Your task to perform on an android device: change timer sound Image 0: 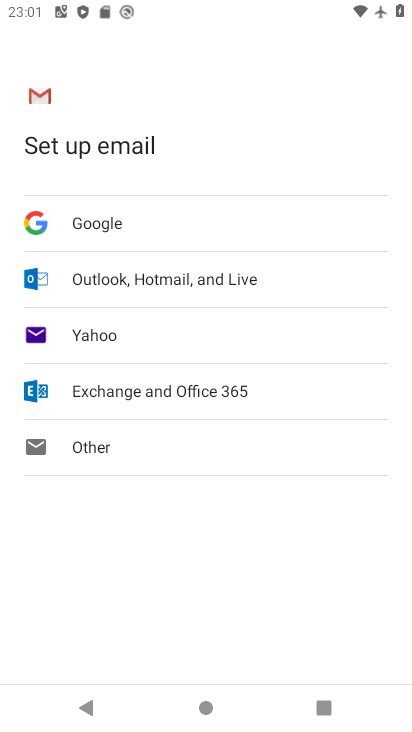
Step 0: press home button
Your task to perform on an android device: change timer sound Image 1: 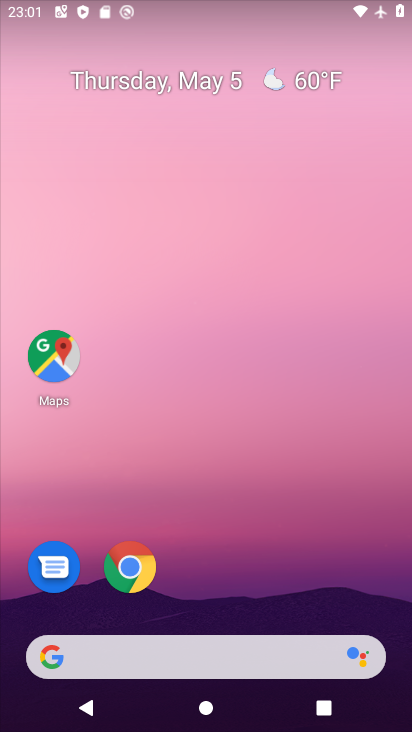
Step 1: drag from (193, 580) to (188, 242)
Your task to perform on an android device: change timer sound Image 2: 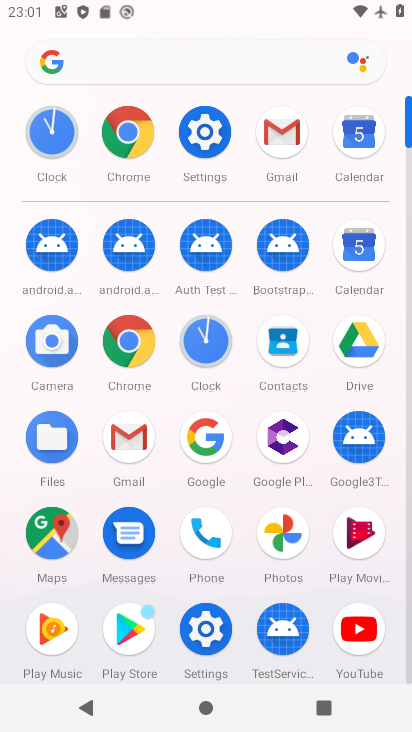
Step 2: click (214, 342)
Your task to perform on an android device: change timer sound Image 3: 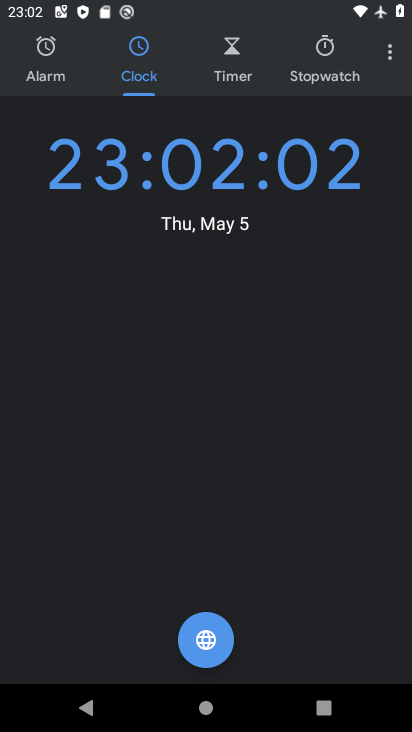
Step 3: click (388, 62)
Your task to perform on an android device: change timer sound Image 4: 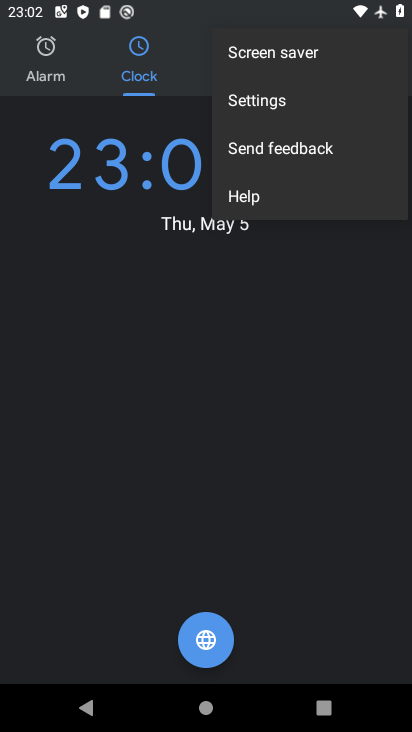
Step 4: click (289, 112)
Your task to perform on an android device: change timer sound Image 5: 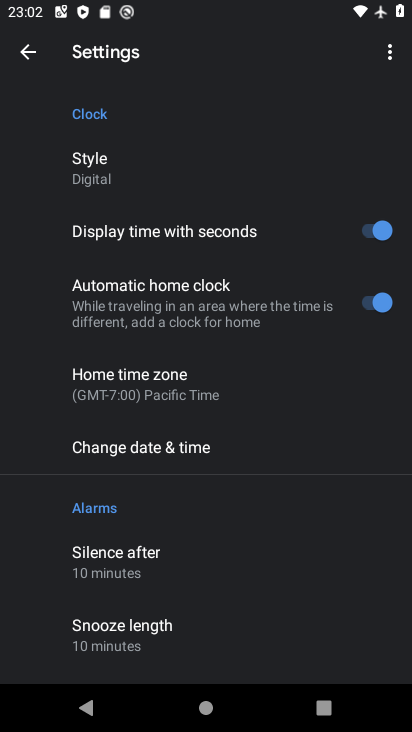
Step 5: drag from (197, 638) to (274, 248)
Your task to perform on an android device: change timer sound Image 6: 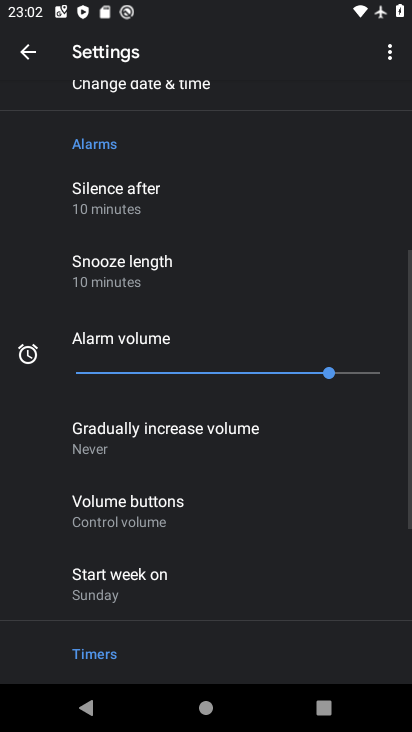
Step 6: drag from (221, 615) to (236, 375)
Your task to perform on an android device: change timer sound Image 7: 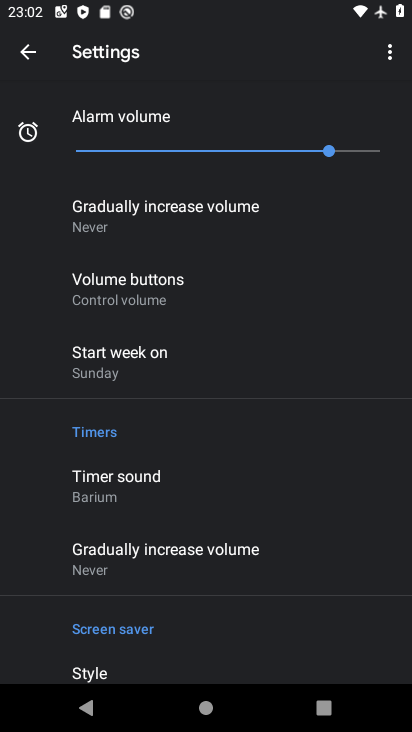
Step 7: click (130, 487)
Your task to perform on an android device: change timer sound Image 8: 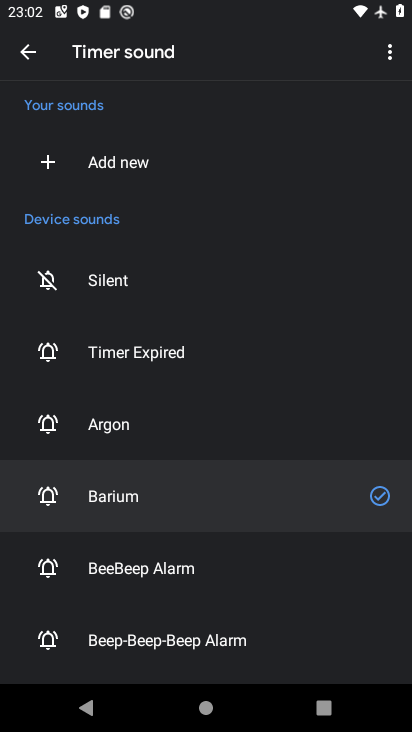
Step 8: click (193, 355)
Your task to perform on an android device: change timer sound Image 9: 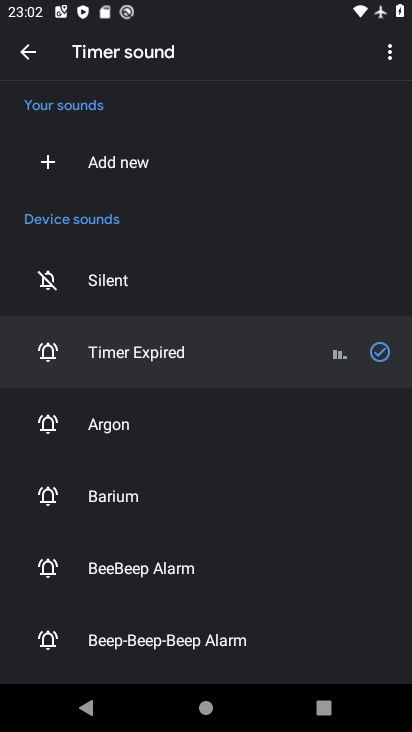
Step 9: task complete